Your task to perform on an android device: Open Amazon Image 0: 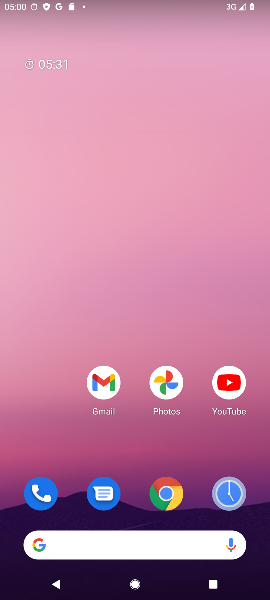
Step 0: press home button
Your task to perform on an android device: Open Amazon Image 1: 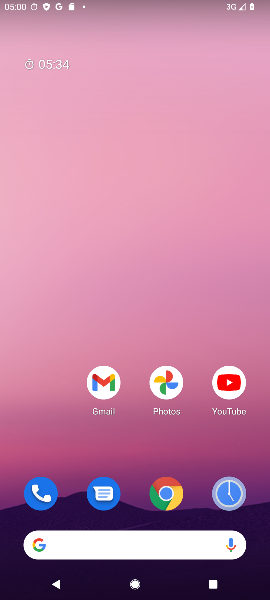
Step 1: drag from (42, 435) to (77, 170)
Your task to perform on an android device: Open Amazon Image 2: 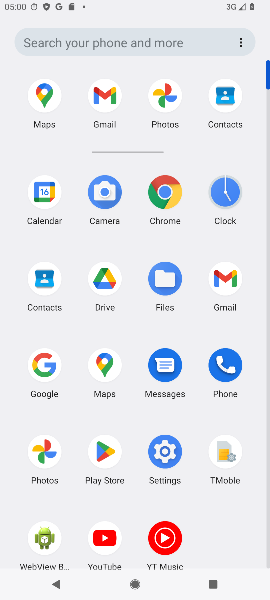
Step 2: click (164, 191)
Your task to perform on an android device: Open Amazon Image 3: 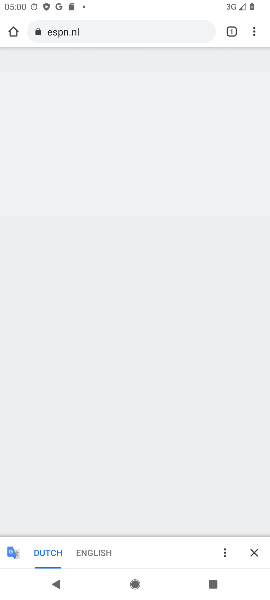
Step 3: click (151, 29)
Your task to perform on an android device: Open Amazon Image 4: 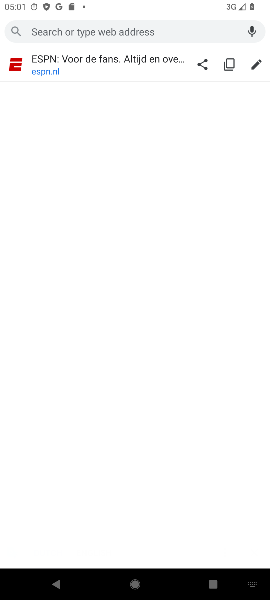
Step 4: type "amazon"
Your task to perform on an android device: Open Amazon Image 5: 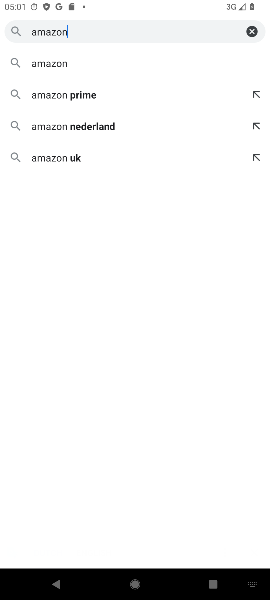
Step 5: click (61, 64)
Your task to perform on an android device: Open Amazon Image 6: 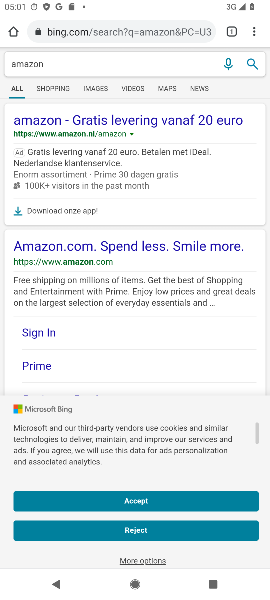
Step 6: task complete